Your task to perform on an android device: Open Youtube and go to the subscriptions tab Image 0: 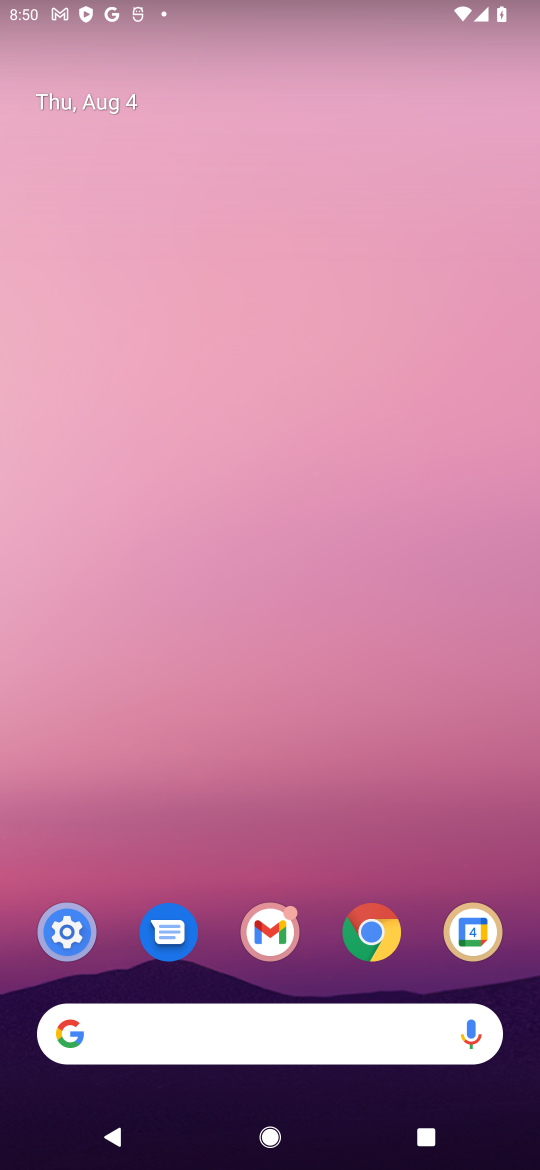
Step 0: drag from (289, 833) to (285, 119)
Your task to perform on an android device: Open Youtube and go to the subscriptions tab Image 1: 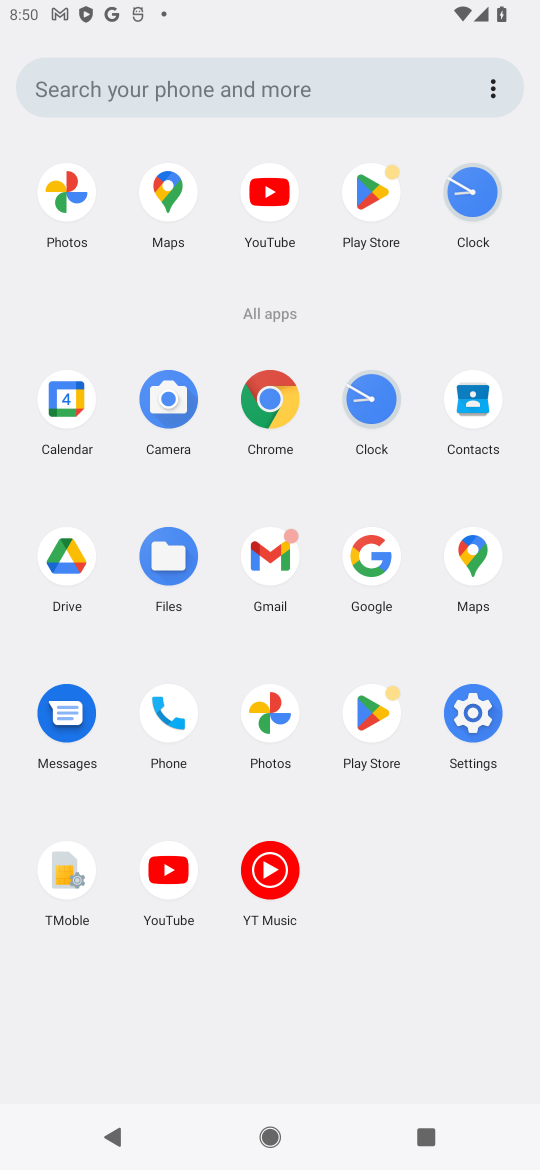
Step 1: click (156, 861)
Your task to perform on an android device: Open Youtube and go to the subscriptions tab Image 2: 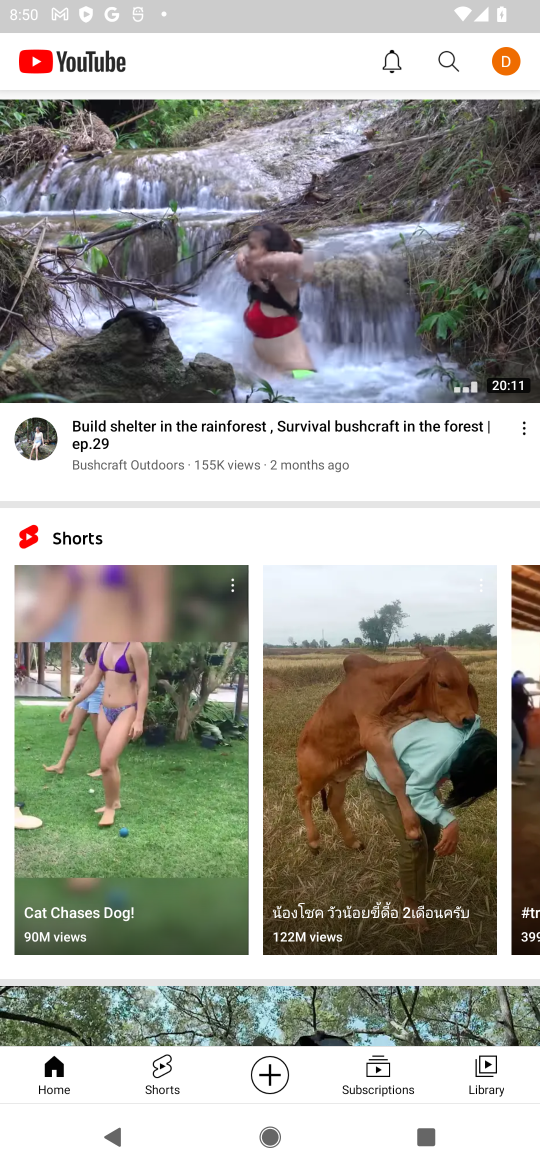
Step 2: press back button
Your task to perform on an android device: Open Youtube and go to the subscriptions tab Image 3: 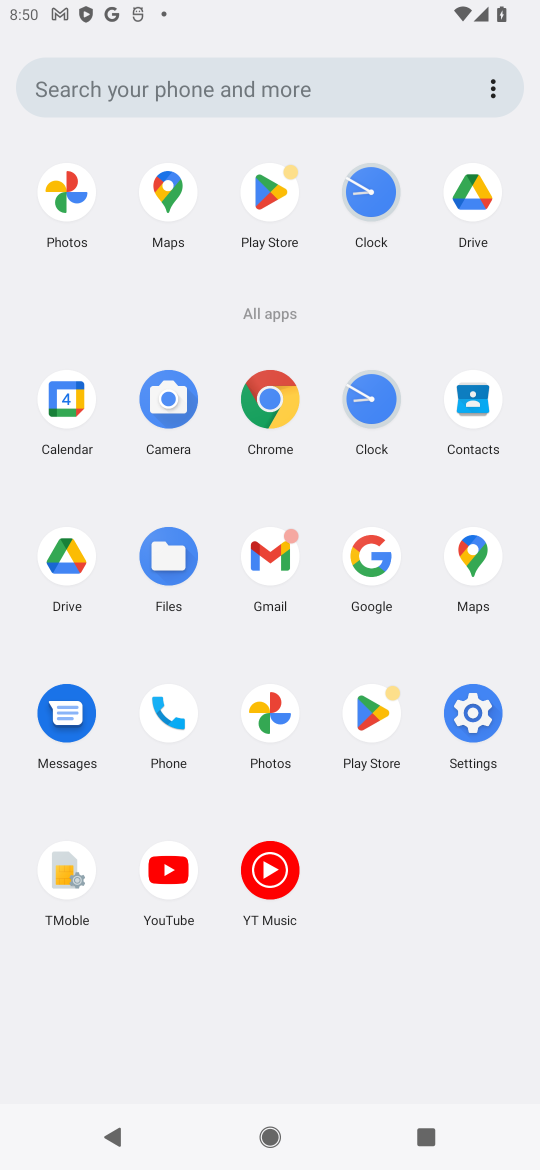
Step 3: click (165, 883)
Your task to perform on an android device: Open Youtube and go to the subscriptions tab Image 4: 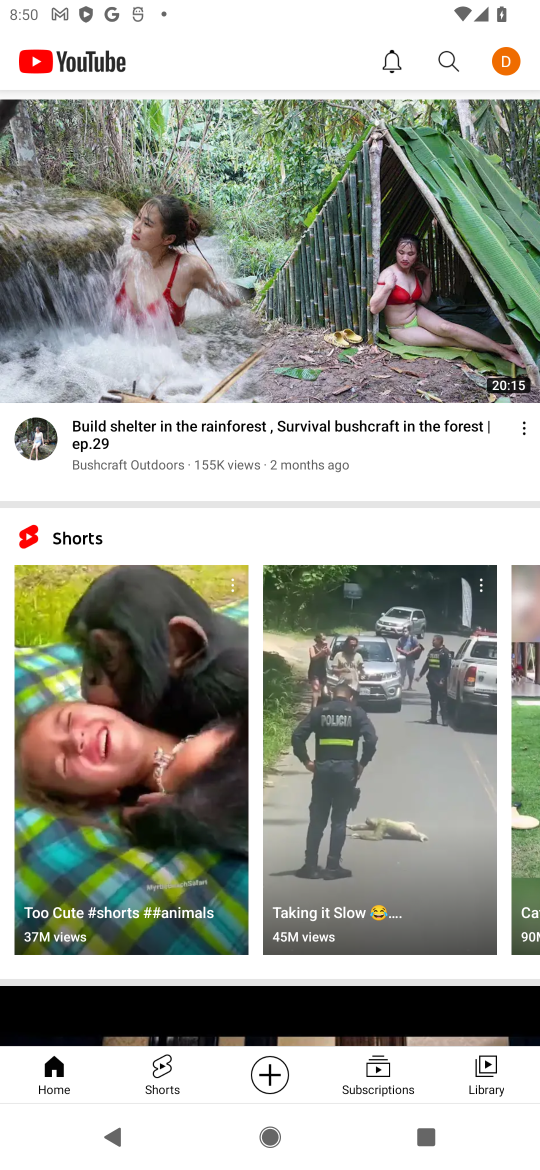
Step 4: click (384, 1066)
Your task to perform on an android device: Open Youtube and go to the subscriptions tab Image 5: 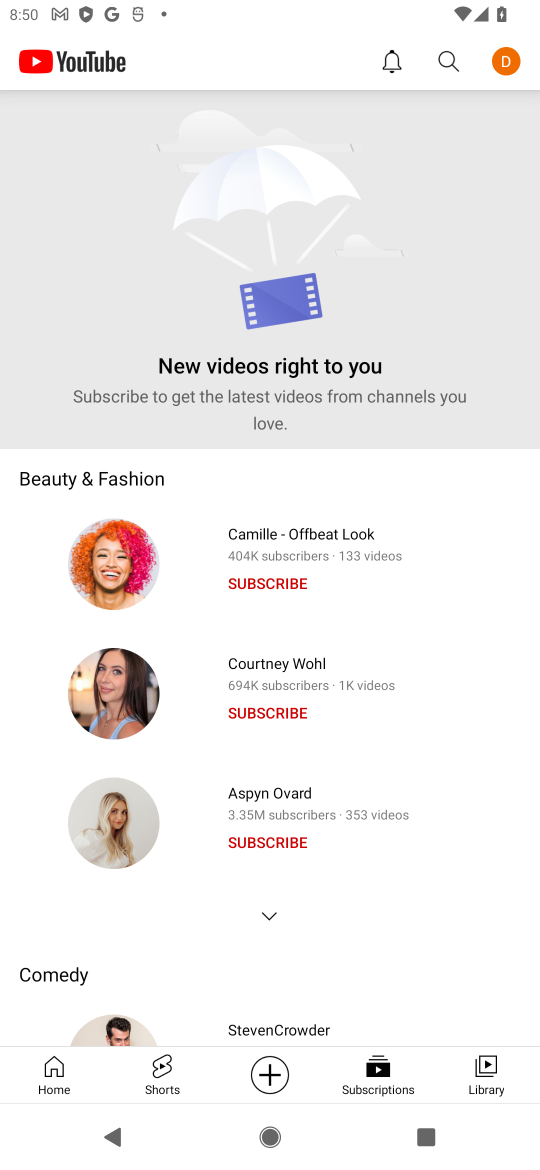
Step 5: task complete